Your task to perform on an android device: Clear the cart on newegg.com. Search for "rayovac triple a" on newegg.com, select the first entry, and add it to the cart. Image 0: 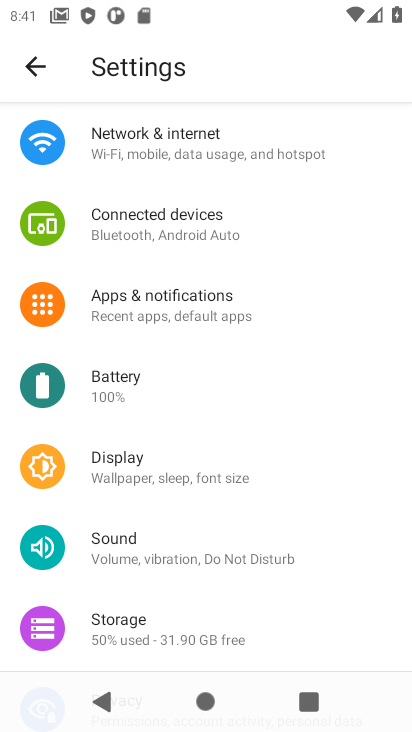
Step 0: press home button
Your task to perform on an android device: Clear the cart on newegg.com. Search for "rayovac triple a" on newegg.com, select the first entry, and add it to the cart. Image 1: 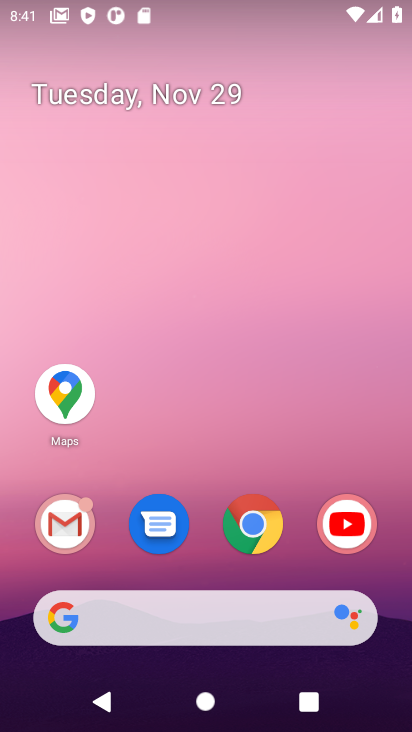
Step 1: click (251, 522)
Your task to perform on an android device: Clear the cart on newegg.com. Search for "rayovac triple a" on newegg.com, select the first entry, and add it to the cart. Image 2: 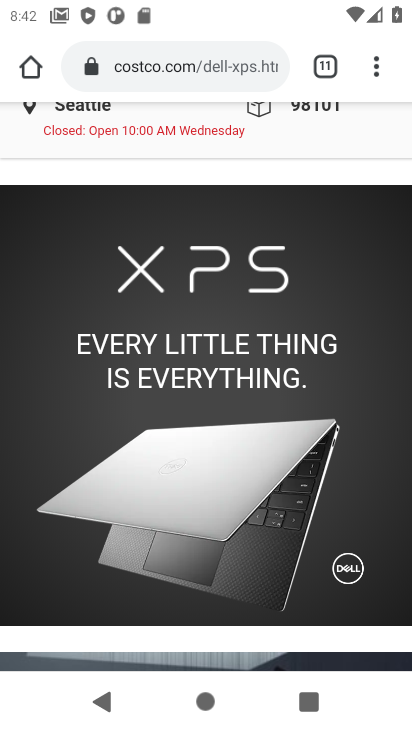
Step 2: click (186, 64)
Your task to perform on an android device: Clear the cart on newegg.com. Search for "rayovac triple a" on newegg.com, select the first entry, and add it to the cart. Image 3: 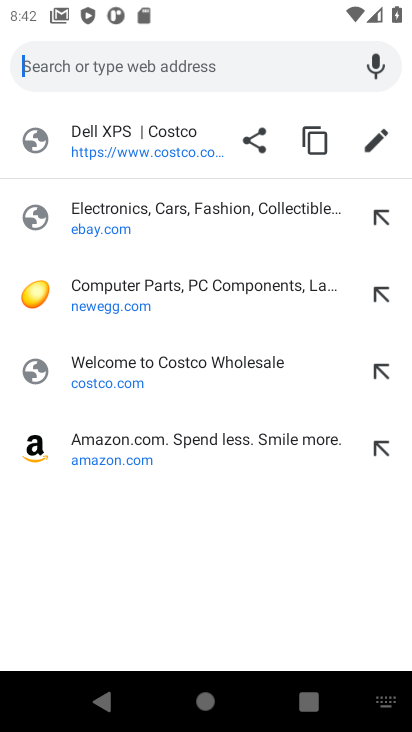
Step 3: click (102, 304)
Your task to perform on an android device: Clear the cart on newegg.com. Search for "rayovac triple a" on newegg.com, select the first entry, and add it to the cart. Image 4: 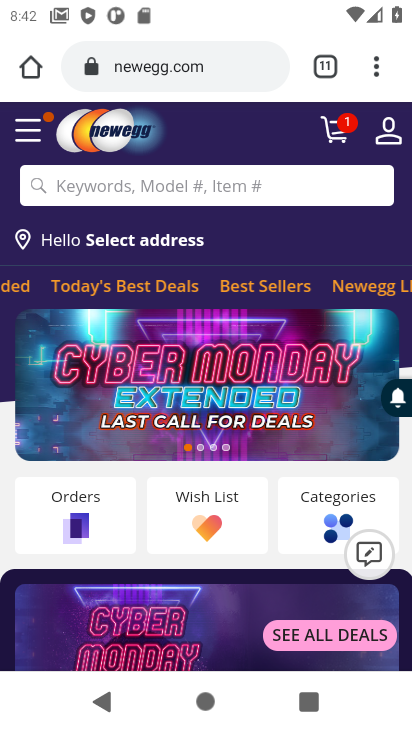
Step 4: click (335, 130)
Your task to perform on an android device: Clear the cart on newegg.com. Search for "rayovac triple a" on newegg.com, select the first entry, and add it to the cart. Image 5: 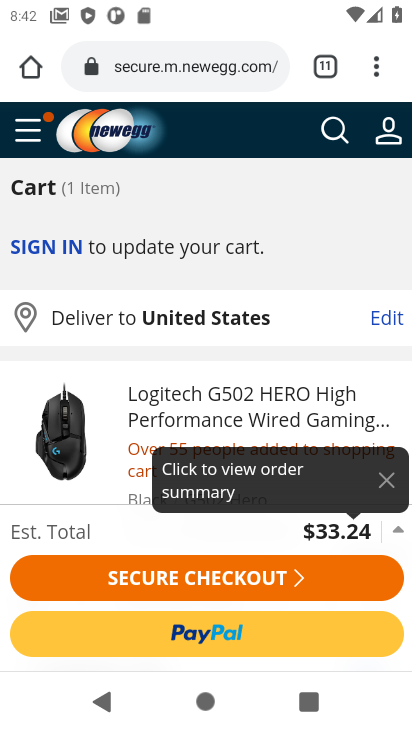
Step 5: drag from (243, 402) to (240, 244)
Your task to perform on an android device: Clear the cart on newegg.com. Search for "rayovac triple a" on newegg.com, select the first entry, and add it to the cart. Image 6: 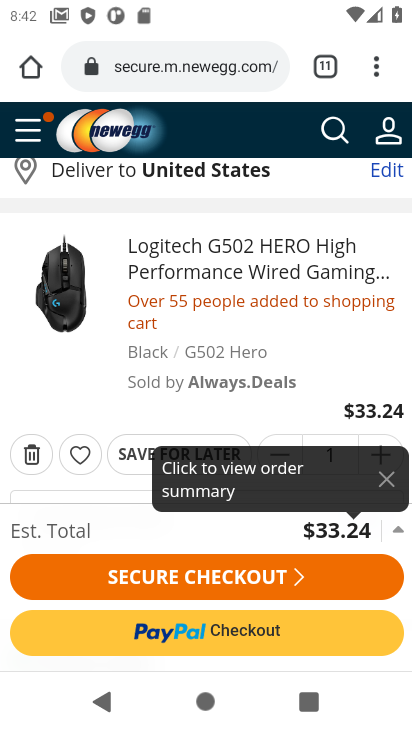
Step 6: click (26, 456)
Your task to perform on an android device: Clear the cart on newegg.com. Search for "rayovac triple a" on newegg.com, select the first entry, and add it to the cart. Image 7: 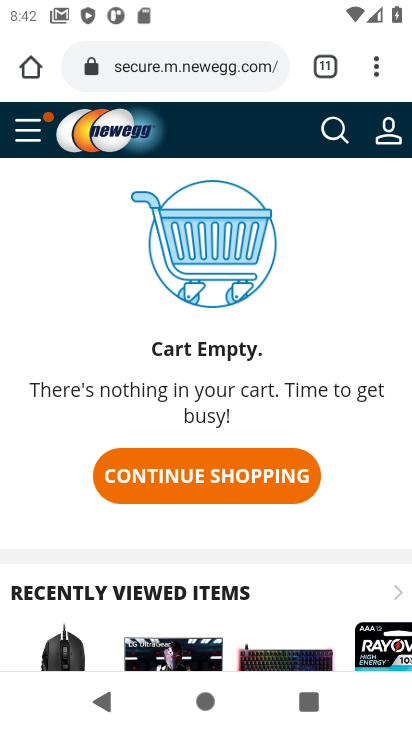
Step 7: click (336, 133)
Your task to perform on an android device: Clear the cart on newegg.com. Search for "rayovac triple a" on newegg.com, select the first entry, and add it to the cart. Image 8: 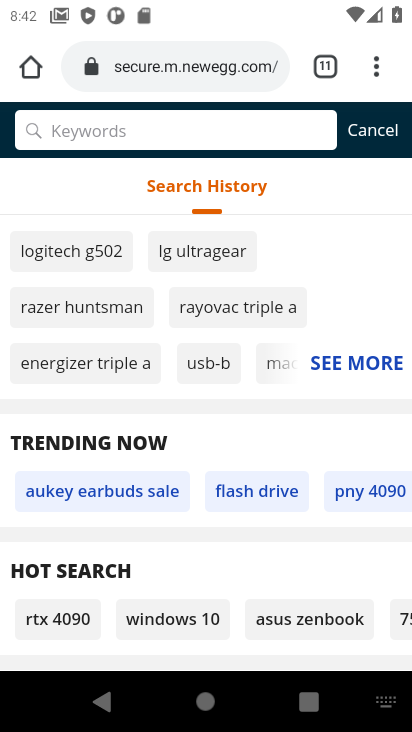
Step 8: type "rayovac triple a"
Your task to perform on an android device: Clear the cart on newegg.com. Search for "rayovac triple a" on newegg.com, select the first entry, and add it to the cart. Image 9: 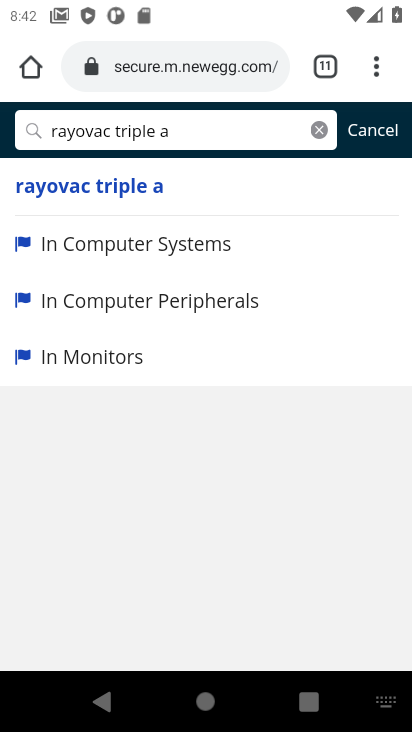
Step 9: click (92, 193)
Your task to perform on an android device: Clear the cart on newegg.com. Search for "rayovac triple a" on newegg.com, select the first entry, and add it to the cart. Image 10: 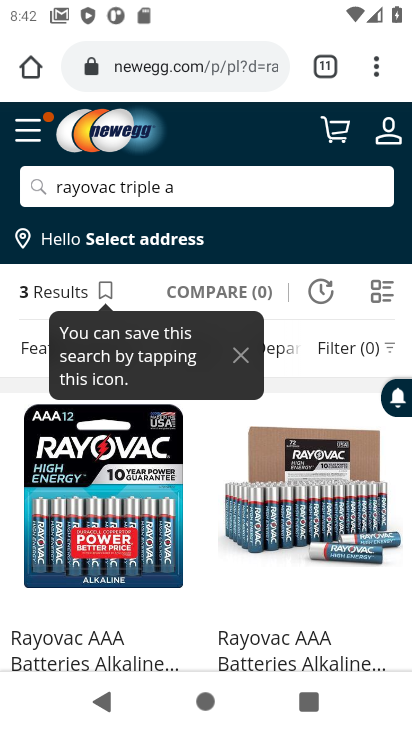
Step 10: drag from (85, 541) to (77, 391)
Your task to perform on an android device: Clear the cart on newegg.com. Search for "rayovac triple a" on newegg.com, select the first entry, and add it to the cart. Image 11: 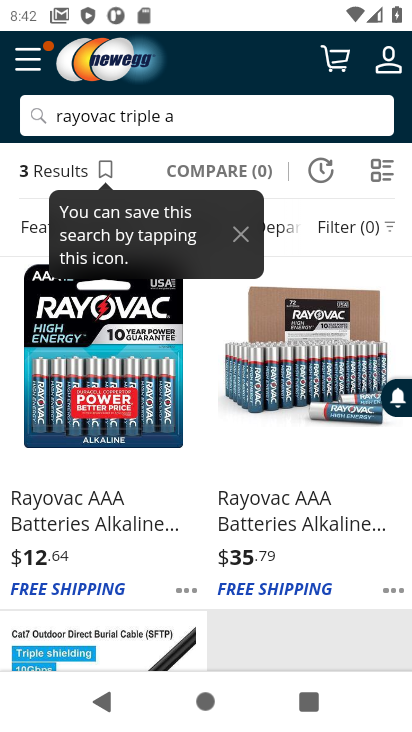
Step 11: click (66, 510)
Your task to perform on an android device: Clear the cart on newegg.com. Search for "rayovac triple a" on newegg.com, select the first entry, and add it to the cart. Image 12: 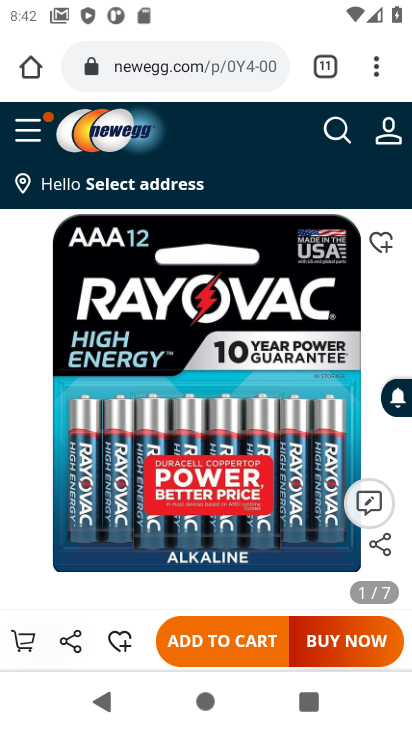
Step 12: click (237, 644)
Your task to perform on an android device: Clear the cart on newegg.com. Search for "rayovac triple a" on newegg.com, select the first entry, and add it to the cart. Image 13: 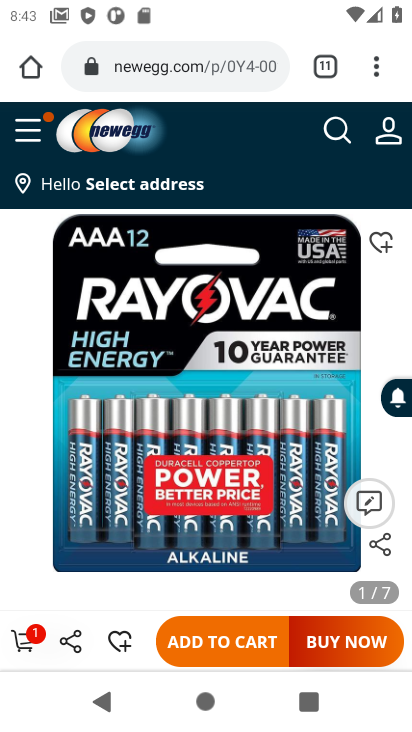
Step 13: click (28, 638)
Your task to perform on an android device: Clear the cart on newegg.com. Search for "rayovac triple a" on newegg.com, select the first entry, and add it to the cart. Image 14: 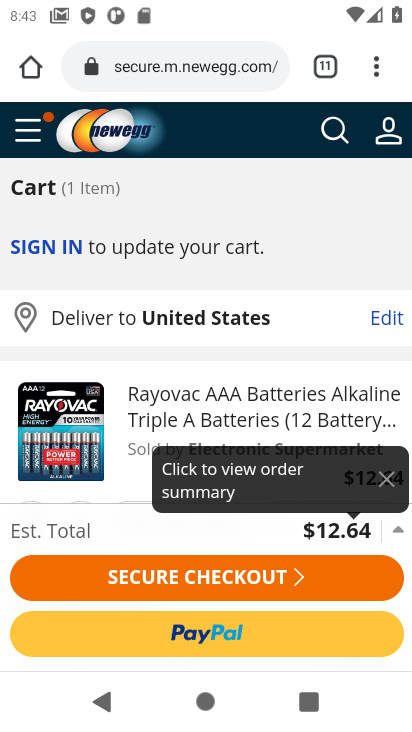
Step 14: task complete